Your task to perform on an android device: Open the calendar app, open the side menu, and click the "Day" option Image 0: 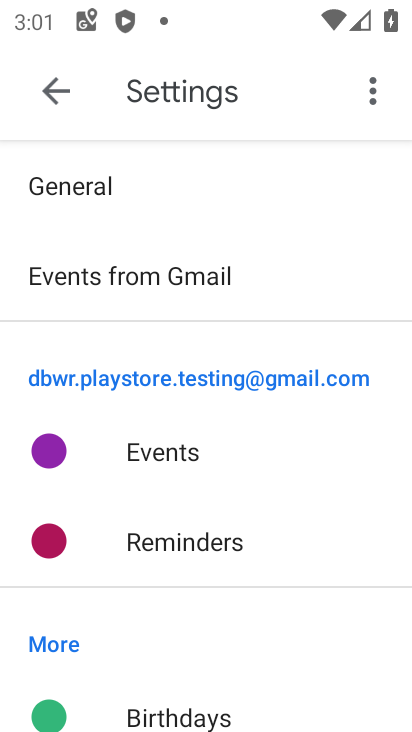
Step 0: press home button
Your task to perform on an android device: Open the calendar app, open the side menu, and click the "Day" option Image 1: 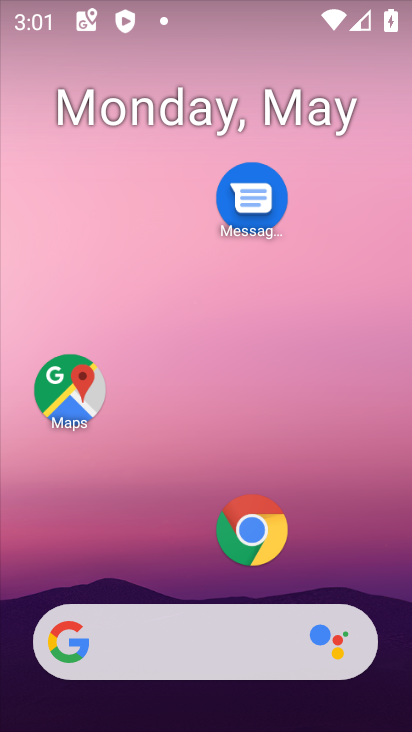
Step 1: drag from (110, 536) to (196, 59)
Your task to perform on an android device: Open the calendar app, open the side menu, and click the "Day" option Image 2: 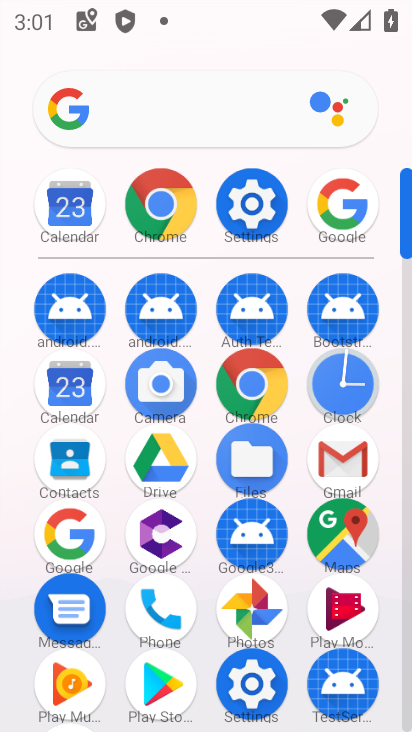
Step 2: click (51, 403)
Your task to perform on an android device: Open the calendar app, open the side menu, and click the "Day" option Image 3: 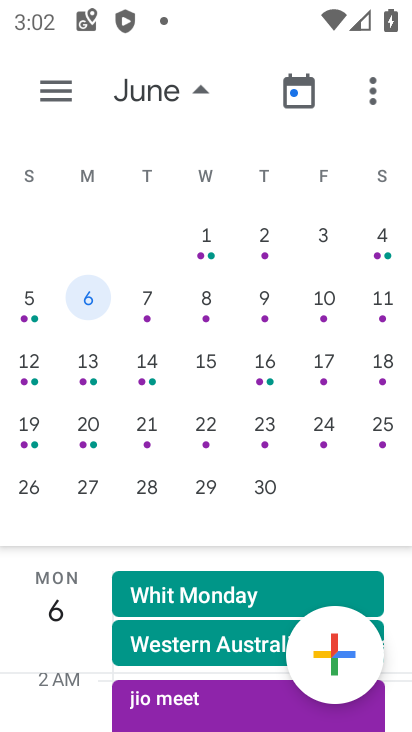
Step 3: click (44, 87)
Your task to perform on an android device: Open the calendar app, open the side menu, and click the "Day" option Image 4: 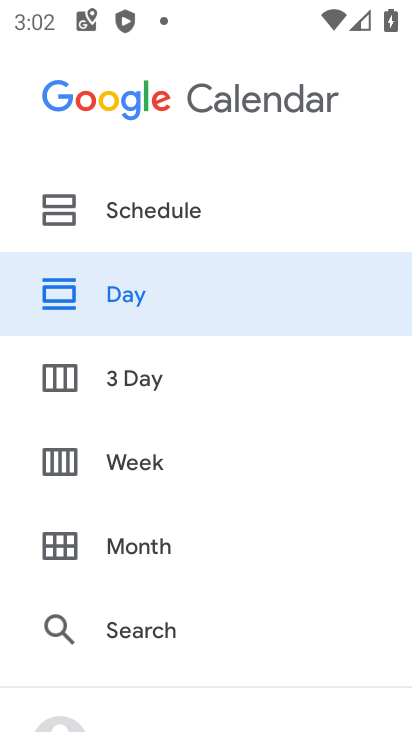
Step 4: click (114, 293)
Your task to perform on an android device: Open the calendar app, open the side menu, and click the "Day" option Image 5: 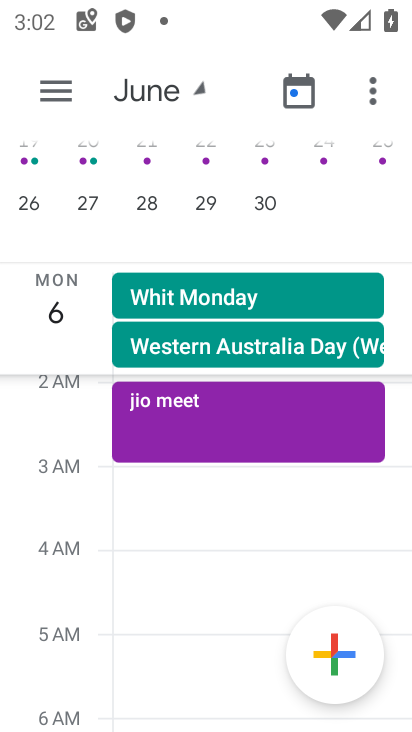
Step 5: task complete